Your task to perform on an android device: Open notification settings Image 0: 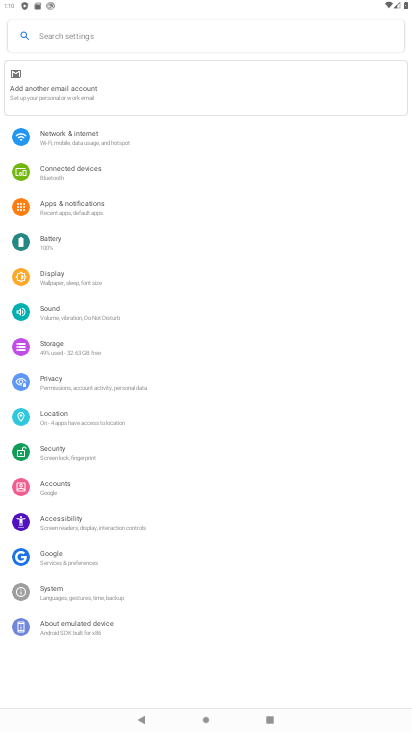
Step 0: click (54, 35)
Your task to perform on an android device: Open notification settings Image 1: 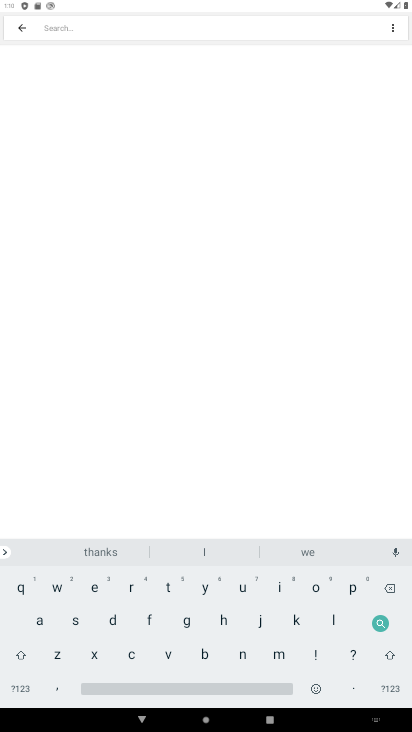
Step 1: click (241, 658)
Your task to perform on an android device: Open notification settings Image 2: 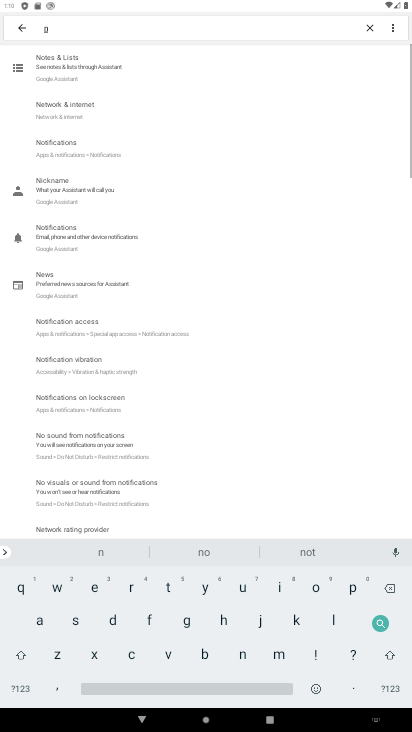
Step 2: click (314, 586)
Your task to perform on an android device: Open notification settings Image 3: 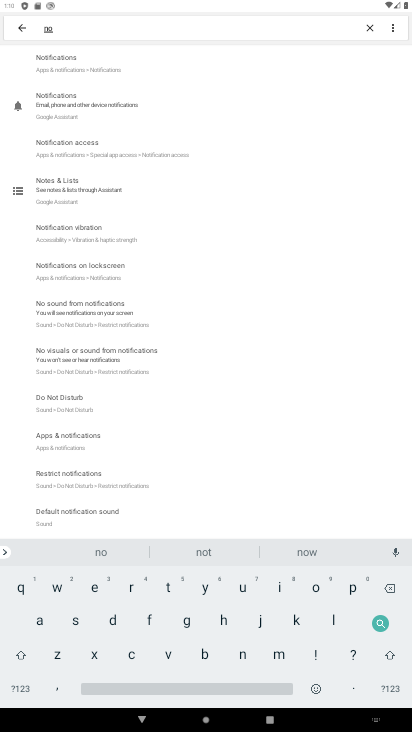
Step 3: click (81, 72)
Your task to perform on an android device: Open notification settings Image 4: 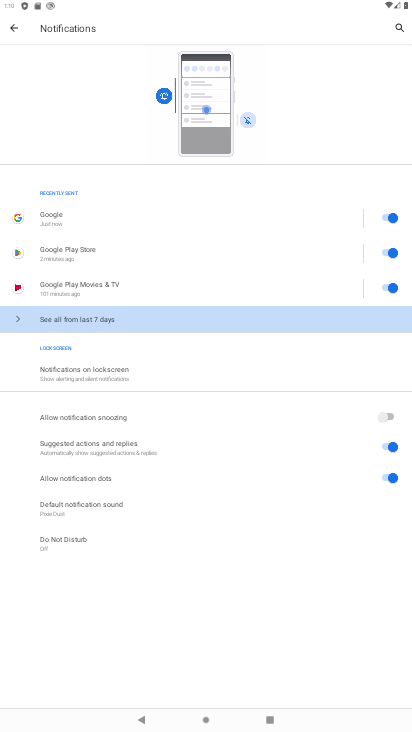
Step 4: click (68, 380)
Your task to perform on an android device: Open notification settings Image 5: 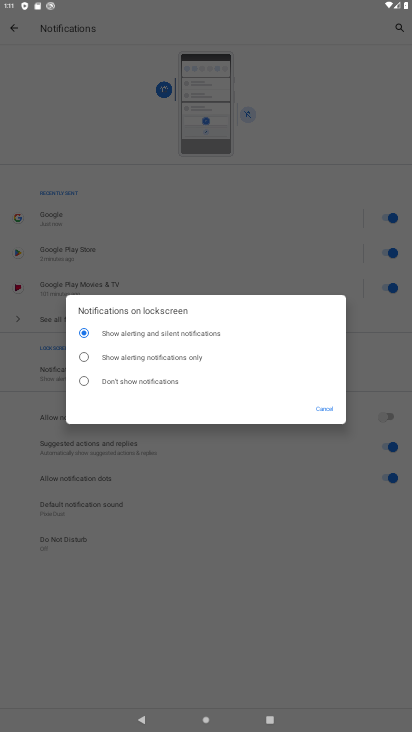
Step 5: task complete